Your task to perform on an android device: Open Youtube and go to "Your channel" Image 0: 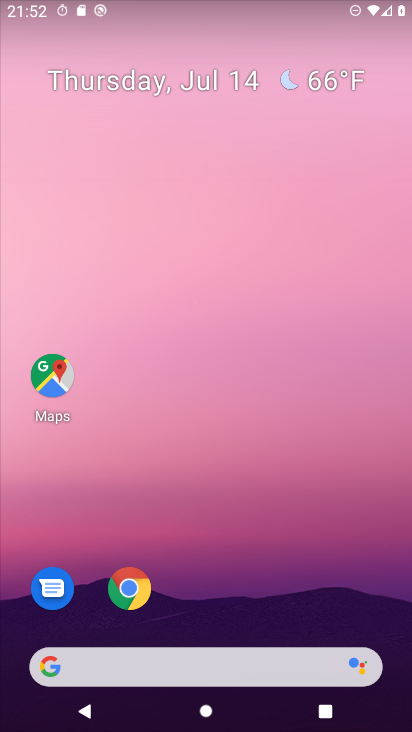
Step 0: drag from (340, 596) to (347, 91)
Your task to perform on an android device: Open Youtube and go to "Your channel" Image 1: 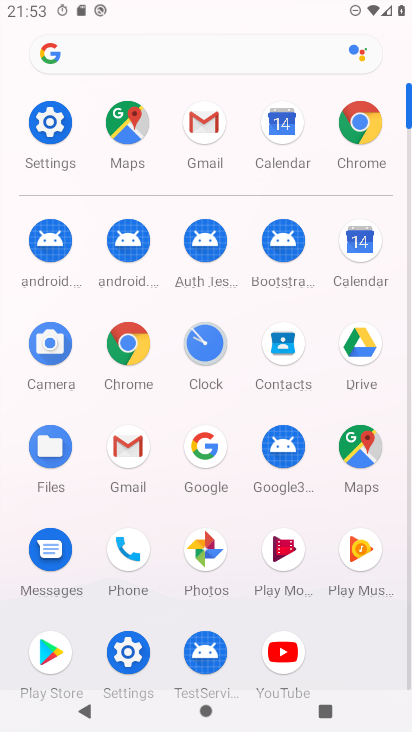
Step 1: click (275, 650)
Your task to perform on an android device: Open Youtube and go to "Your channel" Image 2: 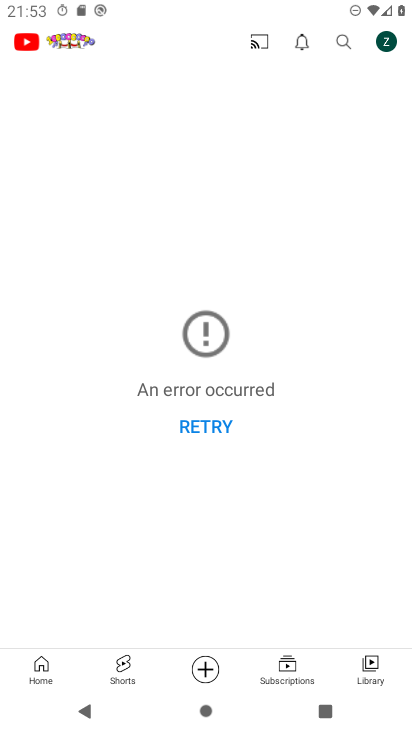
Step 2: click (383, 44)
Your task to perform on an android device: Open Youtube and go to "Your channel" Image 3: 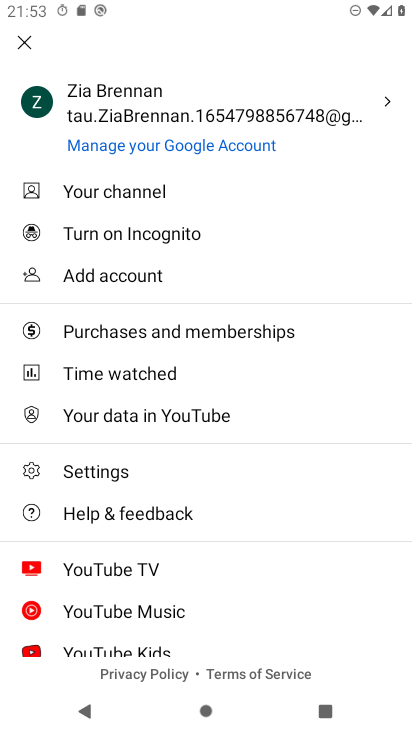
Step 3: click (287, 189)
Your task to perform on an android device: Open Youtube and go to "Your channel" Image 4: 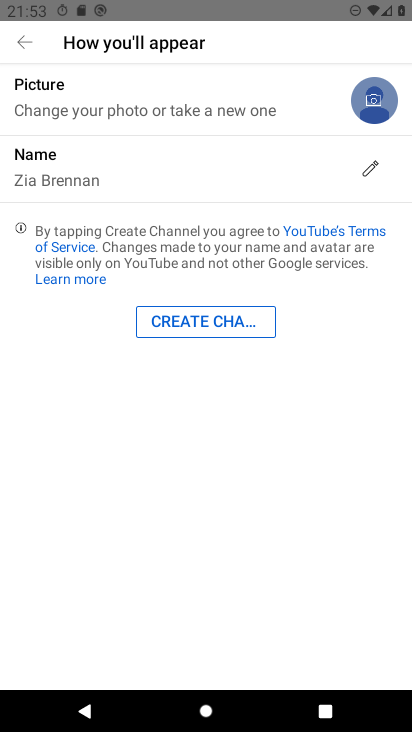
Step 4: task complete